Your task to perform on an android device: change the clock display to digital Image 0: 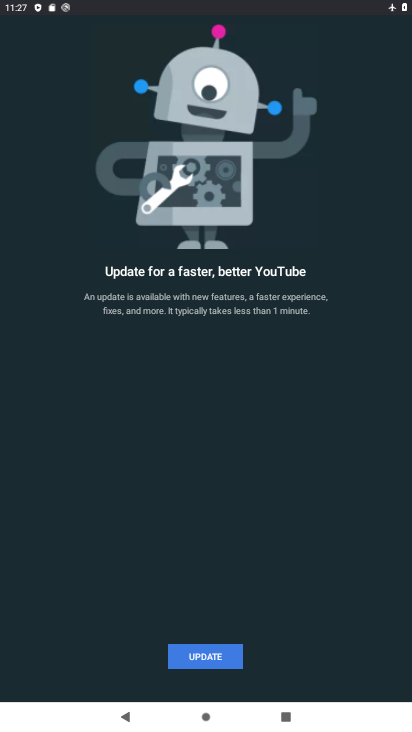
Step 0: press back button
Your task to perform on an android device: change the clock display to digital Image 1: 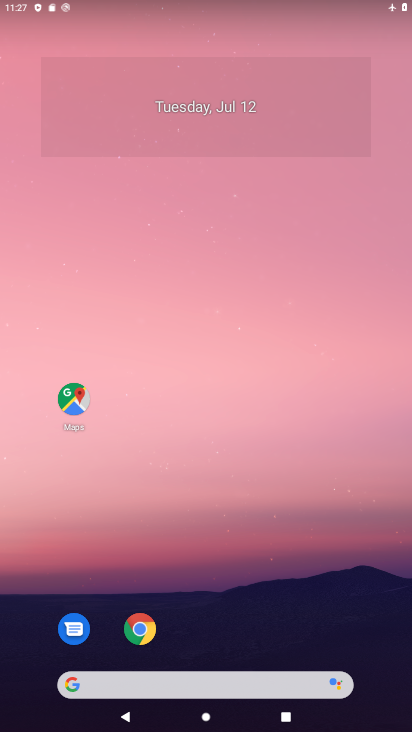
Step 1: drag from (201, 671) to (134, 12)
Your task to perform on an android device: change the clock display to digital Image 2: 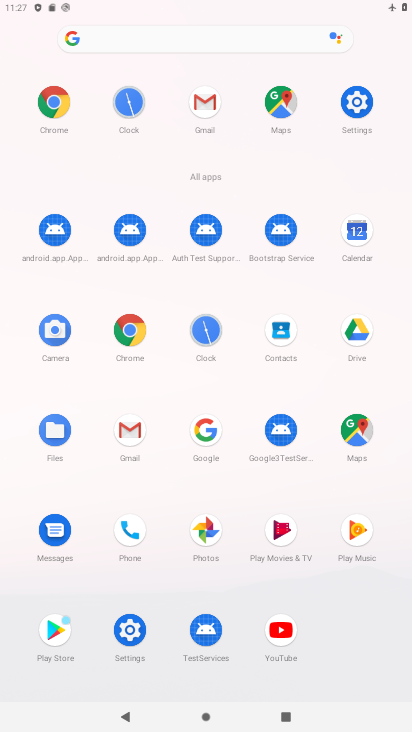
Step 2: click (200, 343)
Your task to perform on an android device: change the clock display to digital Image 3: 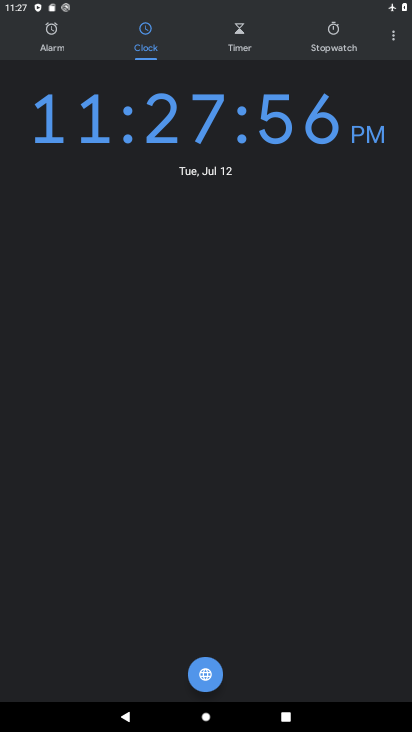
Step 3: click (391, 30)
Your task to perform on an android device: change the clock display to digital Image 4: 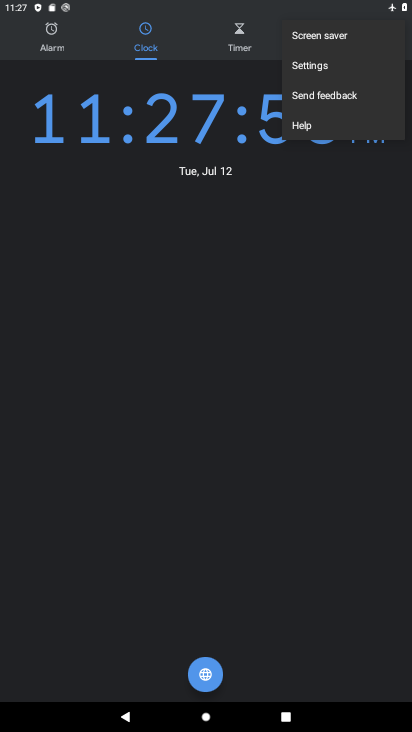
Step 4: click (320, 62)
Your task to perform on an android device: change the clock display to digital Image 5: 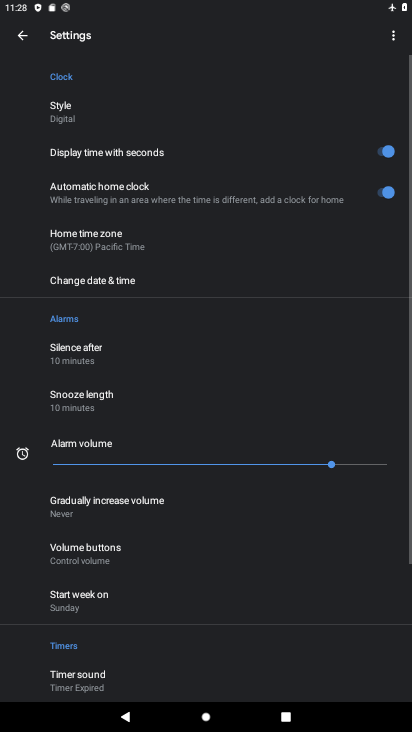
Step 5: click (99, 117)
Your task to perform on an android device: change the clock display to digital Image 6: 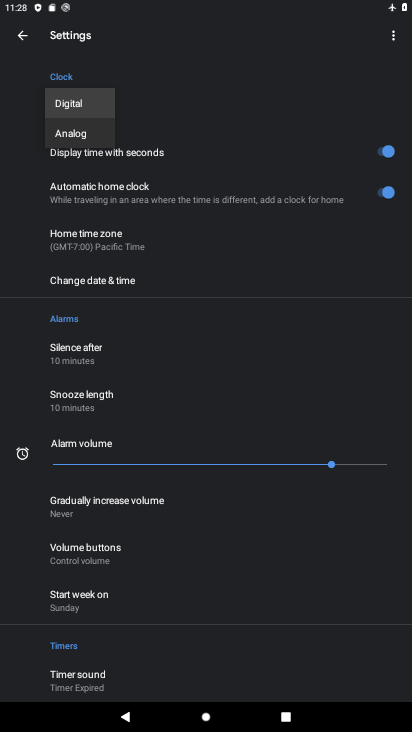
Step 6: click (85, 107)
Your task to perform on an android device: change the clock display to digital Image 7: 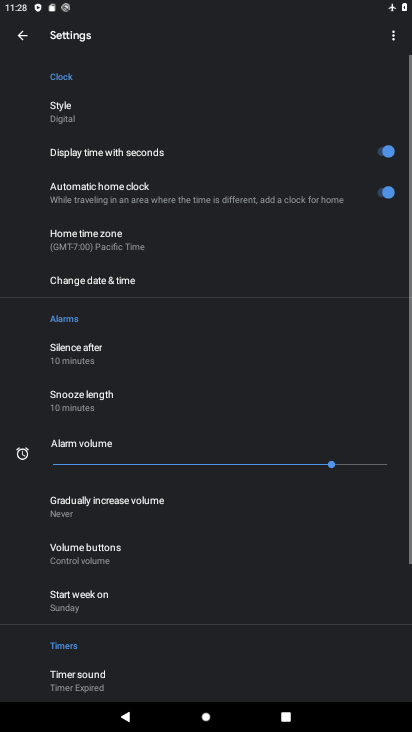
Step 7: task complete